Your task to perform on an android device: turn on notifications settings in the gmail app Image 0: 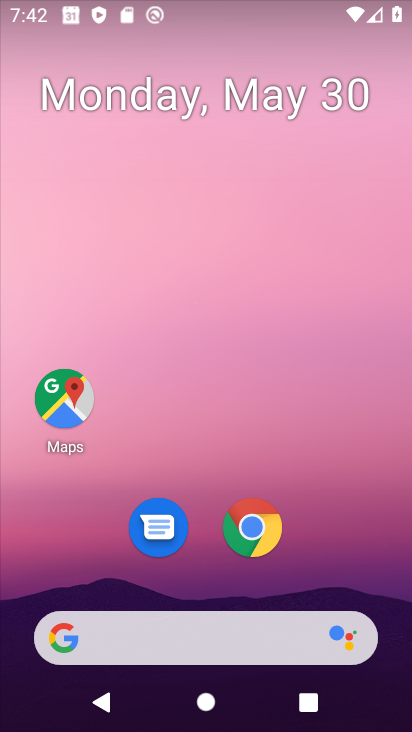
Step 0: drag from (361, 565) to (377, 25)
Your task to perform on an android device: turn on notifications settings in the gmail app Image 1: 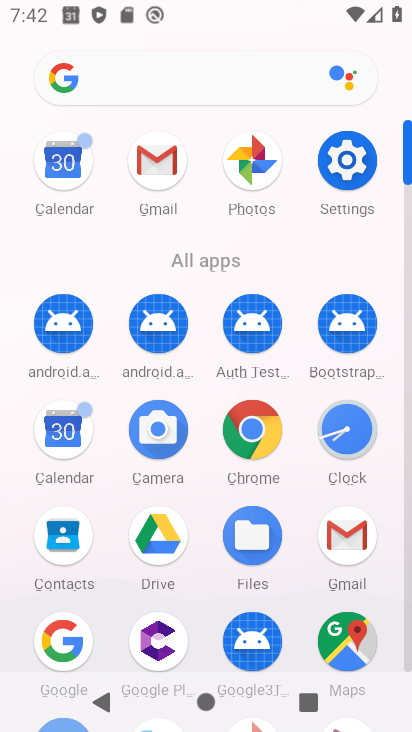
Step 1: click (345, 526)
Your task to perform on an android device: turn on notifications settings in the gmail app Image 2: 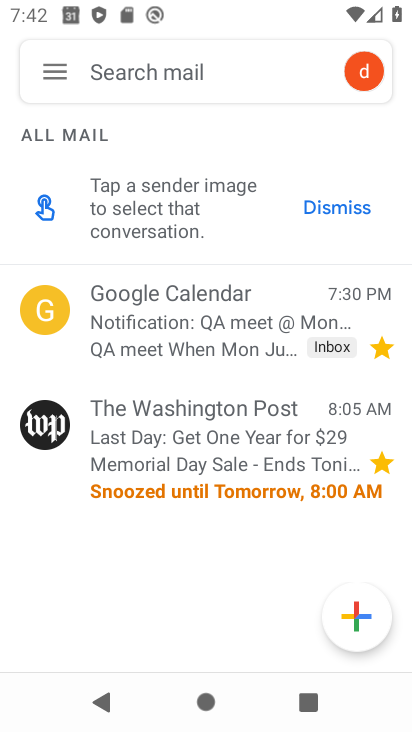
Step 2: click (55, 78)
Your task to perform on an android device: turn on notifications settings in the gmail app Image 3: 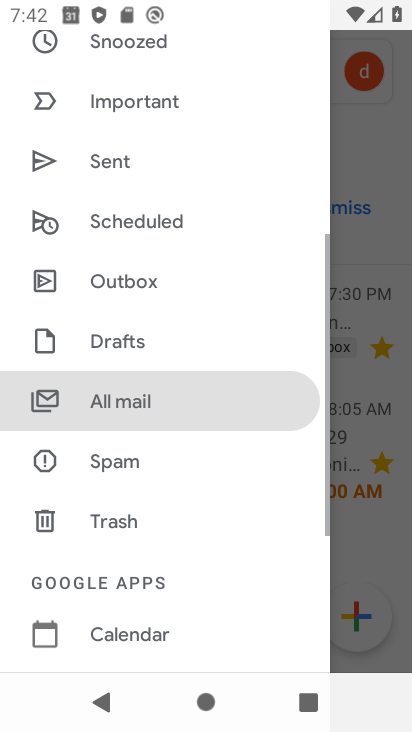
Step 3: drag from (171, 585) to (169, 161)
Your task to perform on an android device: turn on notifications settings in the gmail app Image 4: 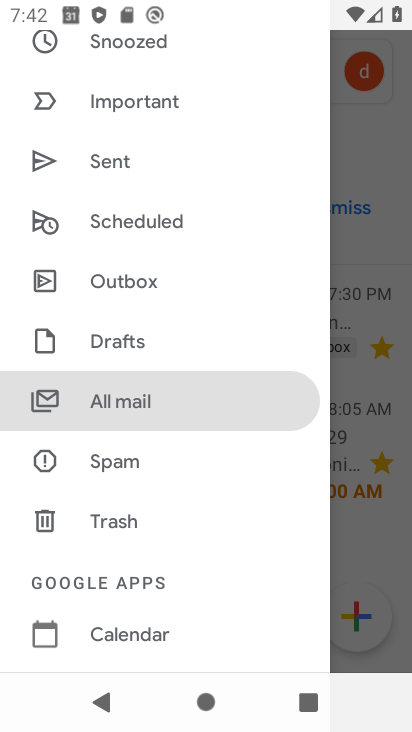
Step 4: drag from (180, 571) to (182, 154)
Your task to perform on an android device: turn on notifications settings in the gmail app Image 5: 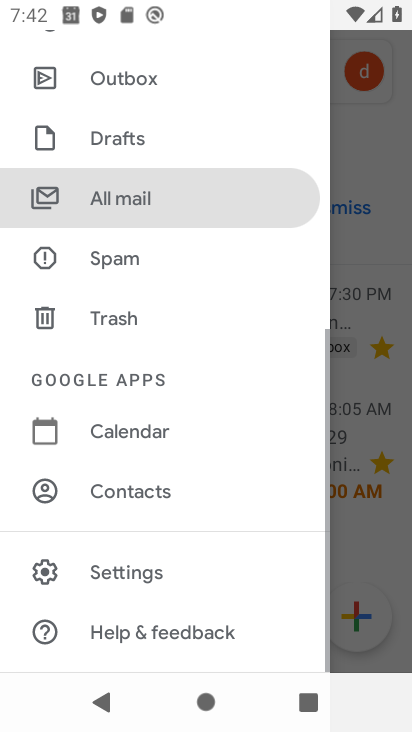
Step 5: click (166, 578)
Your task to perform on an android device: turn on notifications settings in the gmail app Image 6: 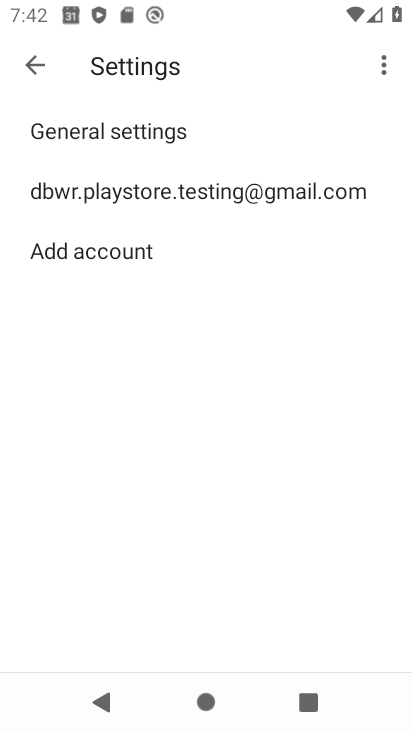
Step 6: click (250, 196)
Your task to perform on an android device: turn on notifications settings in the gmail app Image 7: 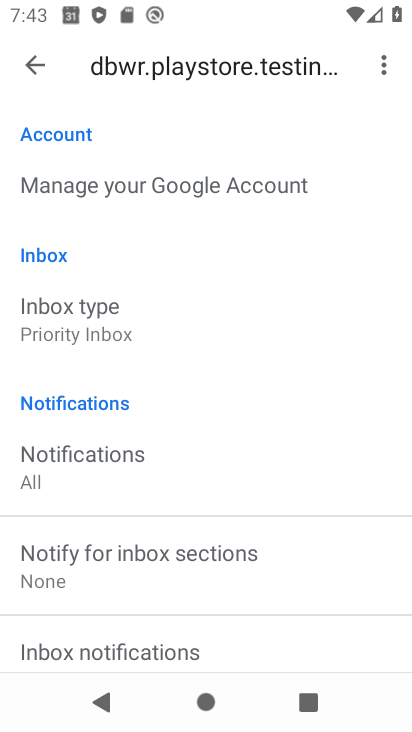
Step 7: drag from (81, 642) to (102, 298)
Your task to perform on an android device: turn on notifications settings in the gmail app Image 8: 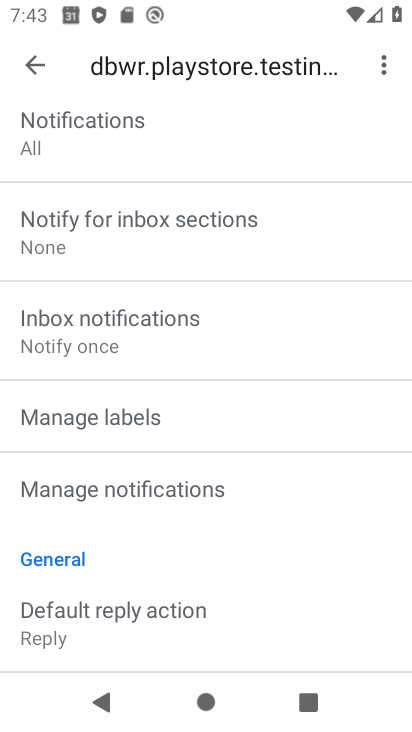
Step 8: click (65, 480)
Your task to perform on an android device: turn on notifications settings in the gmail app Image 9: 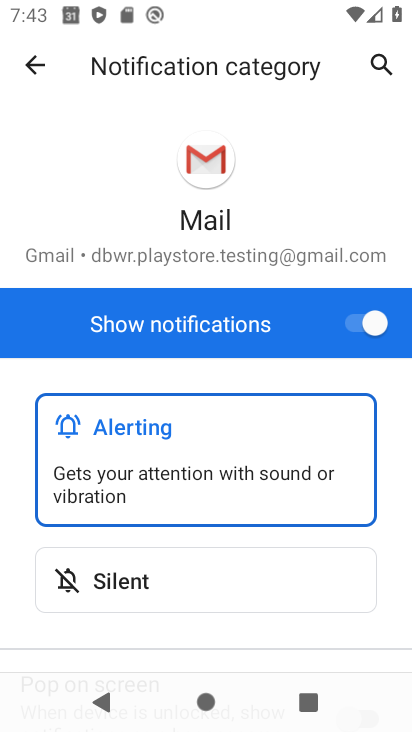
Step 9: task complete